Your task to perform on an android device: check storage Image 0: 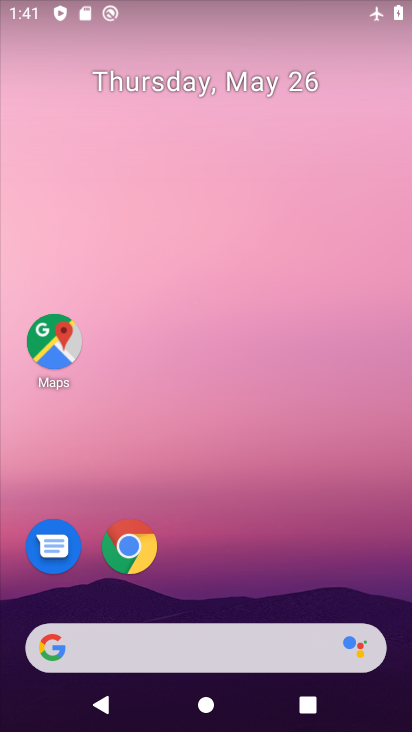
Step 0: drag from (222, 567) to (274, 114)
Your task to perform on an android device: check storage Image 1: 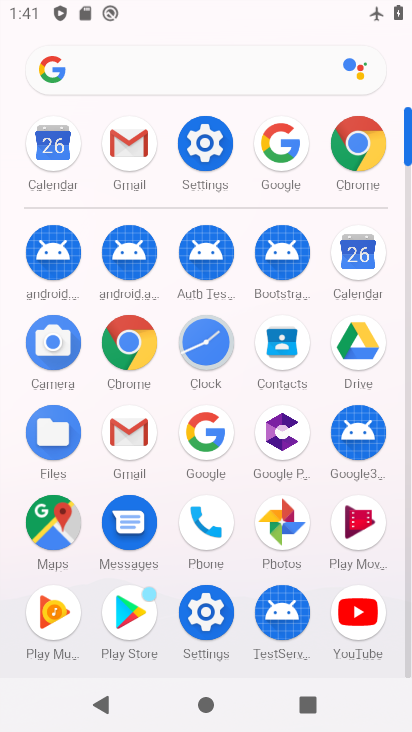
Step 1: click (203, 145)
Your task to perform on an android device: check storage Image 2: 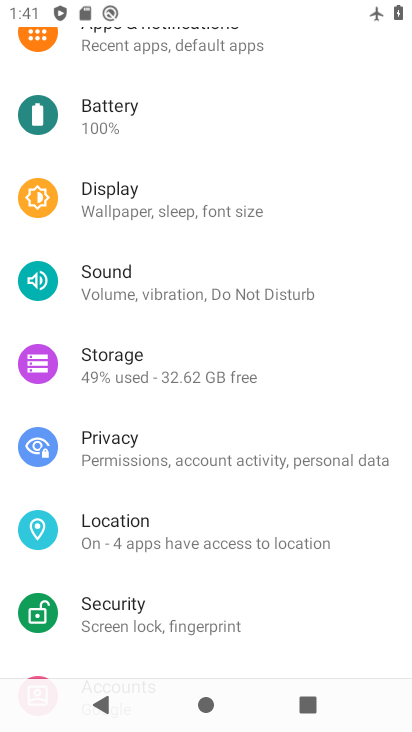
Step 2: click (121, 363)
Your task to perform on an android device: check storage Image 3: 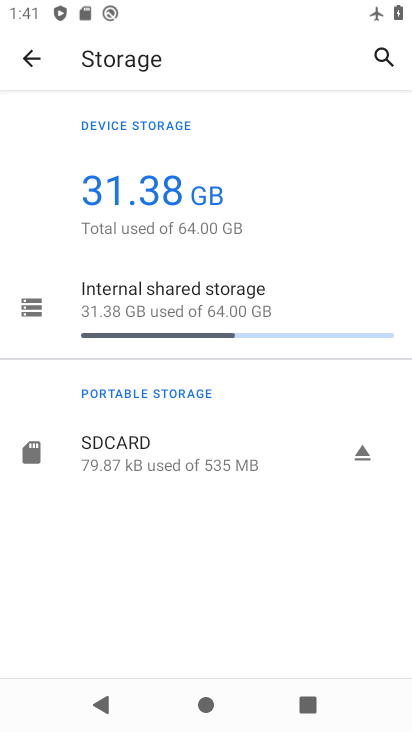
Step 3: task complete